Your task to perform on an android device: Check the news Image 0: 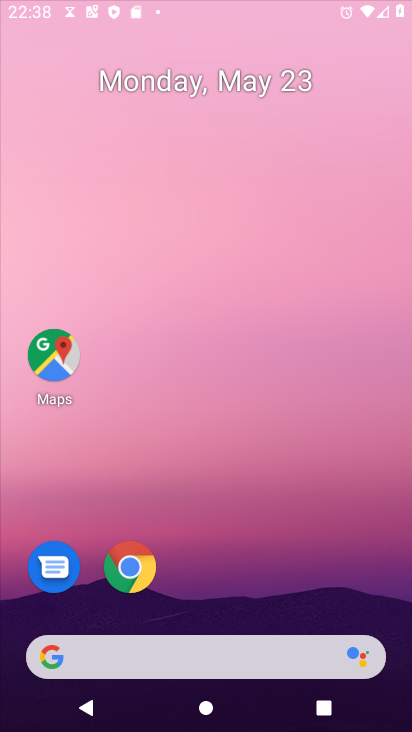
Step 0: press home button
Your task to perform on an android device: Check the news Image 1: 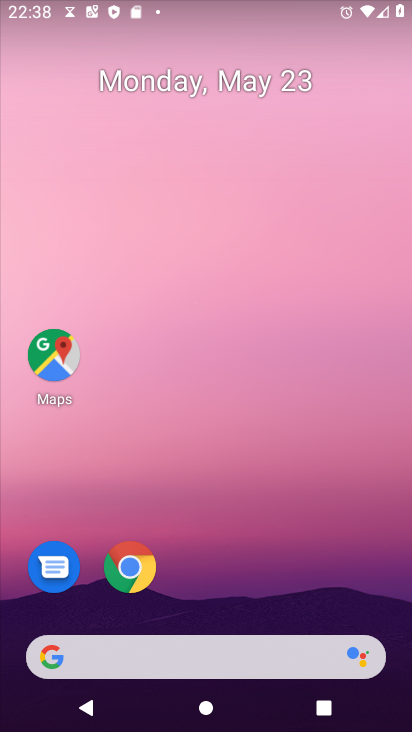
Step 1: drag from (209, 619) to (263, 327)
Your task to perform on an android device: Check the news Image 2: 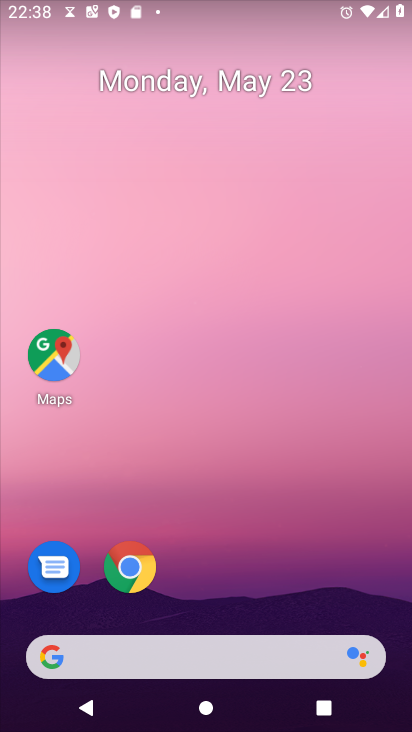
Step 2: click (124, 568)
Your task to perform on an android device: Check the news Image 3: 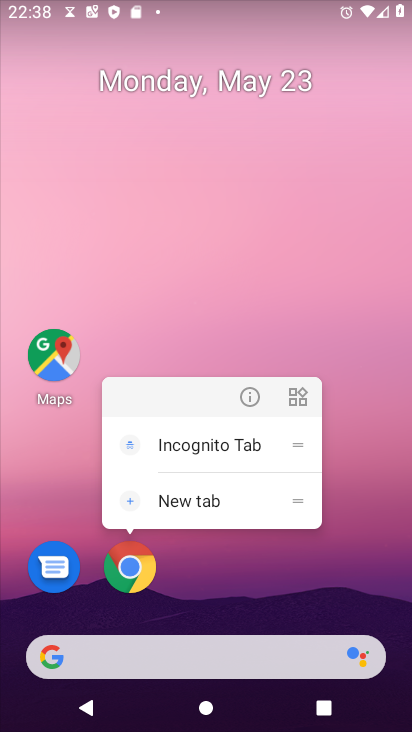
Step 3: click (124, 568)
Your task to perform on an android device: Check the news Image 4: 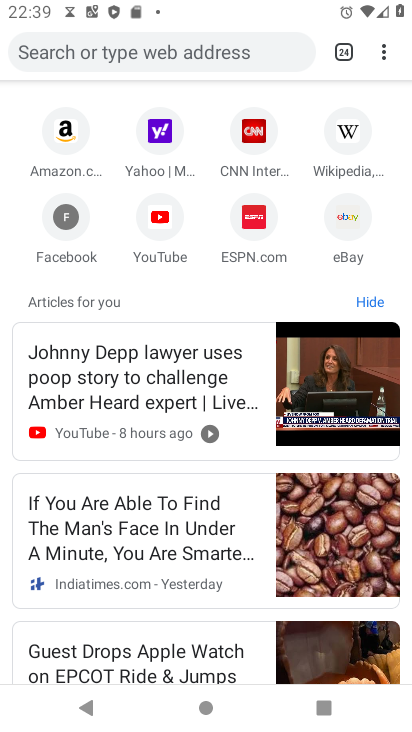
Step 4: click (183, 46)
Your task to perform on an android device: Check the news Image 5: 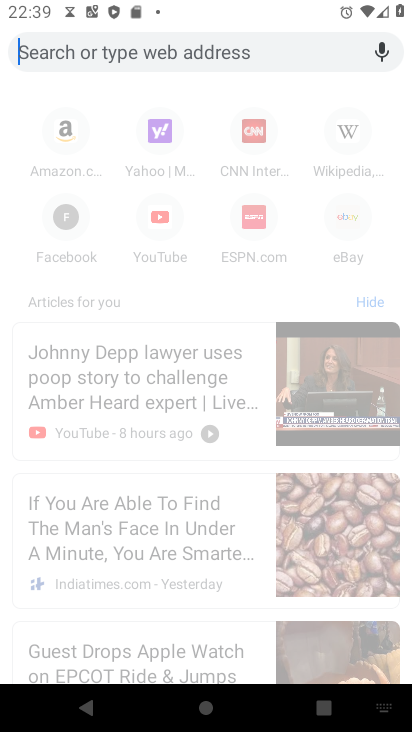
Step 5: type "Check the news"
Your task to perform on an android device: Check the news Image 6: 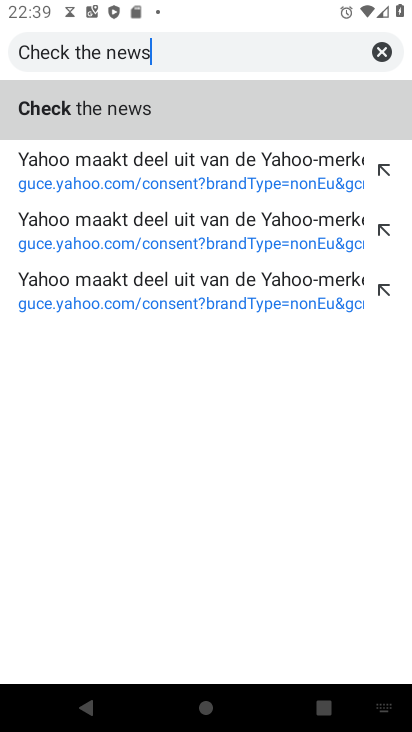
Step 6: click (276, 117)
Your task to perform on an android device: Check the news Image 7: 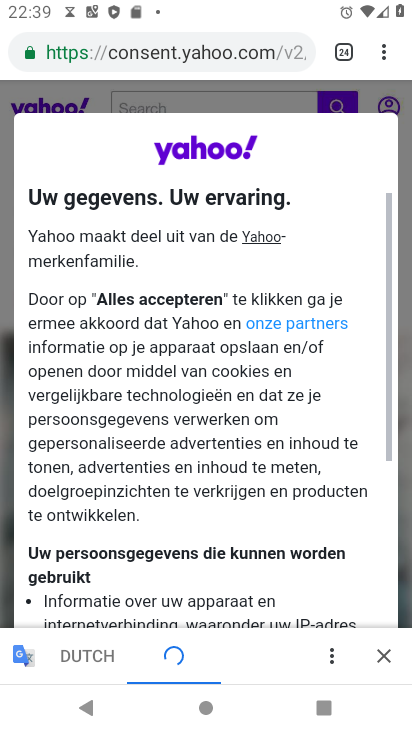
Step 7: click (387, 657)
Your task to perform on an android device: Check the news Image 8: 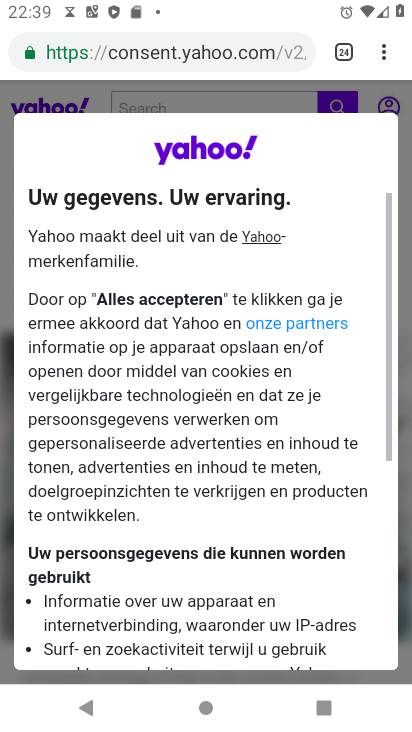
Step 8: task complete